Your task to perform on an android device: open app "Messages" (install if not already installed), go to login, and select forgot password Image 0: 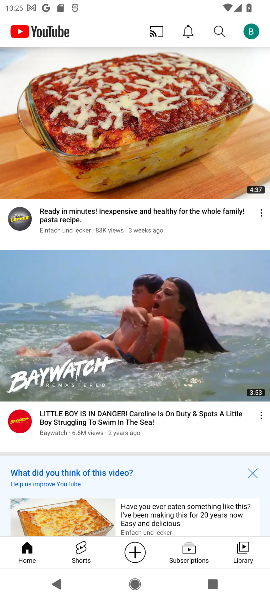
Step 0: press home button
Your task to perform on an android device: open app "Messages" (install if not already installed), go to login, and select forgot password Image 1: 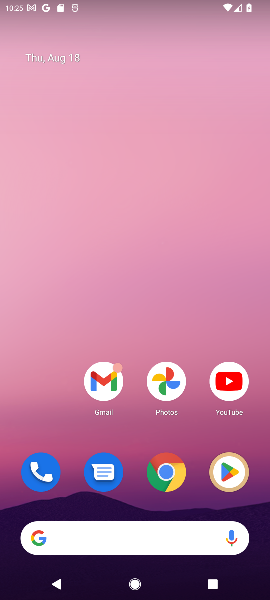
Step 1: drag from (228, 443) to (151, 225)
Your task to perform on an android device: open app "Messages" (install if not already installed), go to login, and select forgot password Image 2: 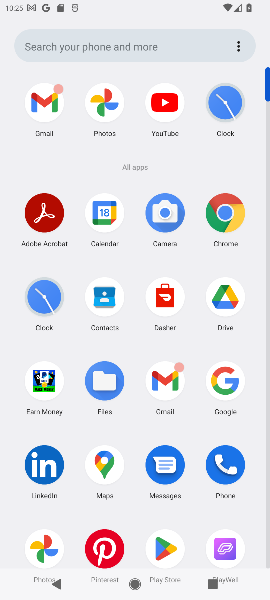
Step 2: click (166, 541)
Your task to perform on an android device: open app "Messages" (install if not already installed), go to login, and select forgot password Image 3: 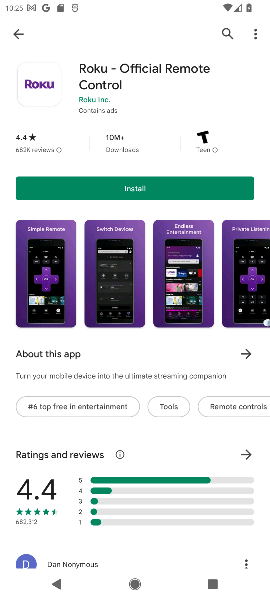
Step 3: click (231, 31)
Your task to perform on an android device: open app "Messages" (install if not already installed), go to login, and select forgot password Image 4: 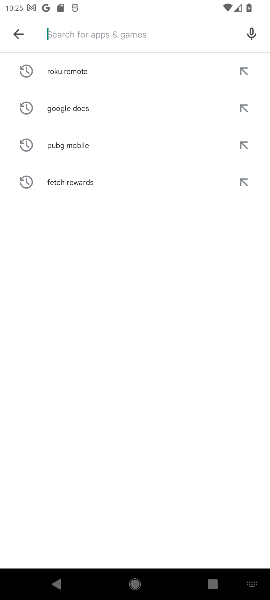
Step 4: type "messages"
Your task to perform on an android device: open app "Messages" (install if not already installed), go to login, and select forgot password Image 5: 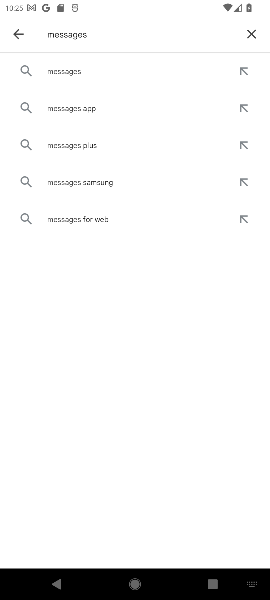
Step 5: click (64, 68)
Your task to perform on an android device: open app "Messages" (install if not already installed), go to login, and select forgot password Image 6: 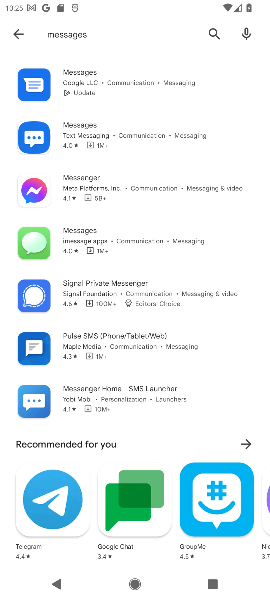
Step 6: click (99, 89)
Your task to perform on an android device: open app "Messages" (install if not already installed), go to login, and select forgot password Image 7: 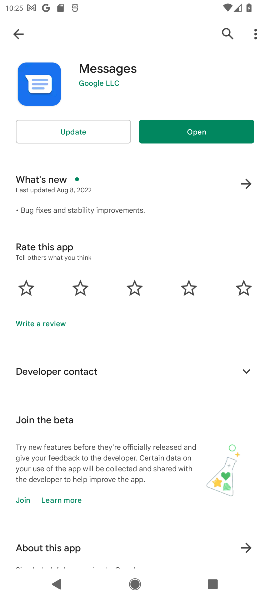
Step 7: click (180, 135)
Your task to perform on an android device: open app "Messages" (install if not already installed), go to login, and select forgot password Image 8: 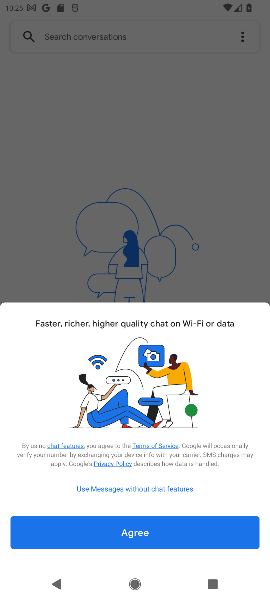
Step 8: click (160, 537)
Your task to perform on an android device: open app "Messages" (install if not already installed), go to login, and select forgot password Image 9: 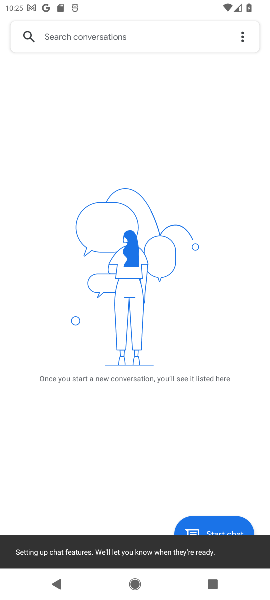
Step 9: click (248, 36)
Your task to perform on an android device: open app "Messages" (install if not already installed), go to login, and select forgot password Image 10: 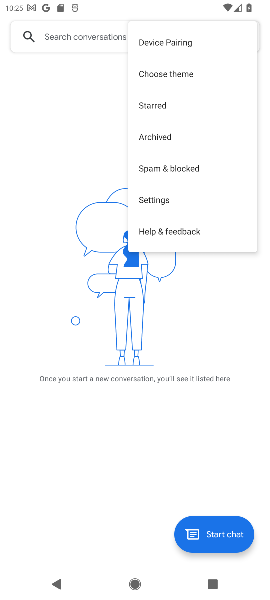
Step 10: click (189, 195)
Your task to perform on an android device: open app "Messages" (install if not already installed), go to login, and select forgot password Image 11: 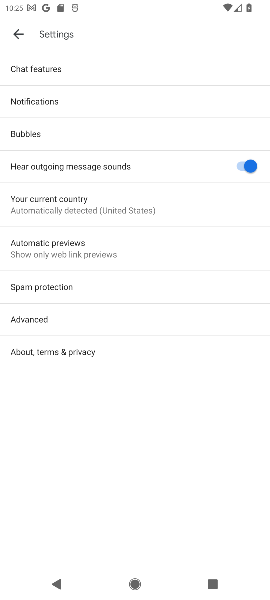
Step 11: task complete